Your task to perform on an android device: Go to Google maps Image 0: 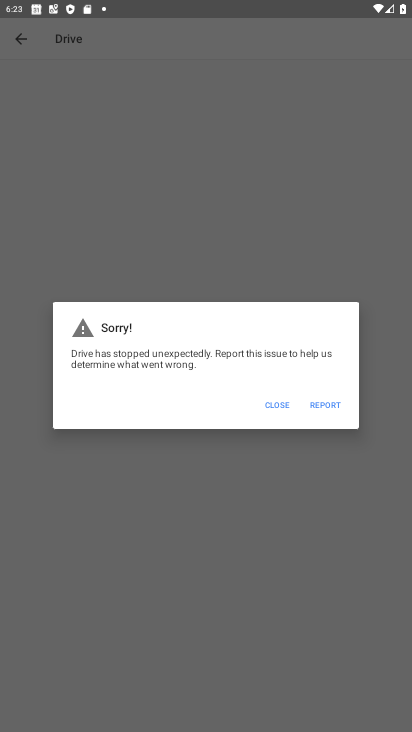
Step 0: press home button
Your task to perform on an android device: Go to Google maps Image 1: 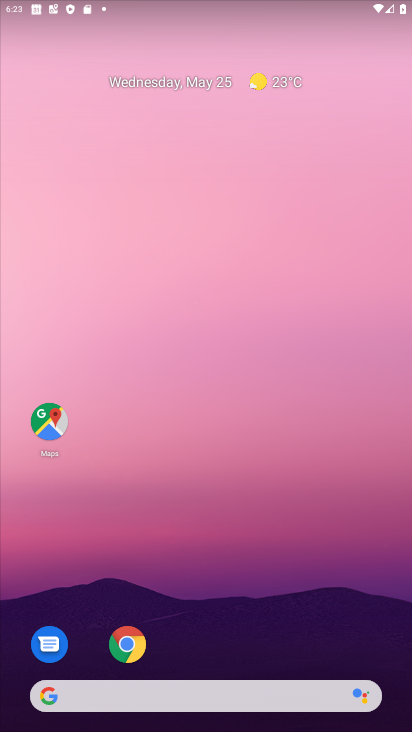
Step 1: drag from (374, 660) to (234, 135)
Your task to perform on an android device: Go to Google maps Image 2: 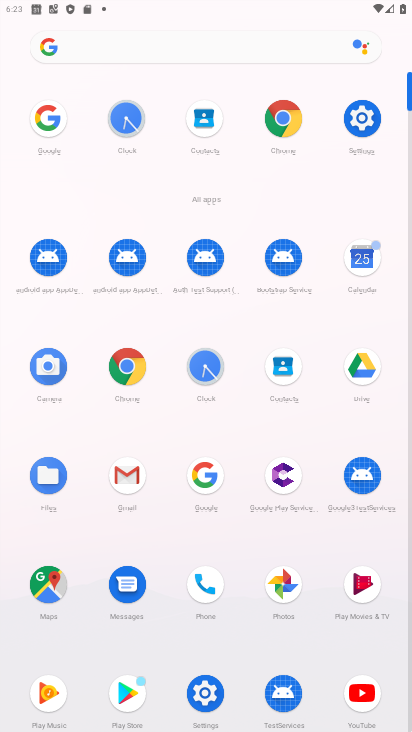
Step 2: click (48, 580)
Your task to perform on an android device: Go to Google maps Image 3: 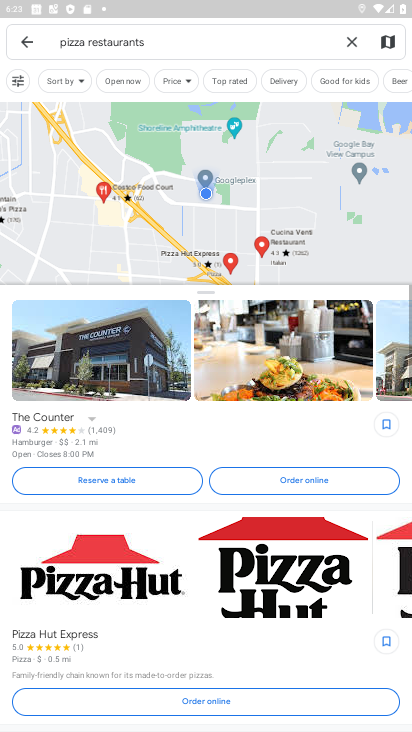
Step 3: task complete